Your task to perform on an android device: check storage Image 0: 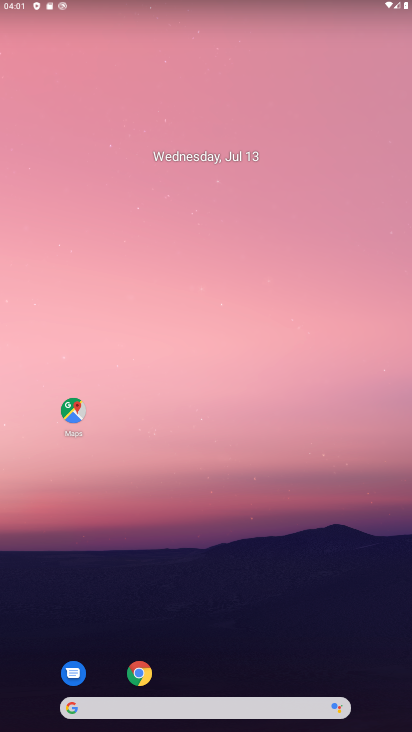
Step 0: press home button
Your task to perform on an android device: check storage Image 1: 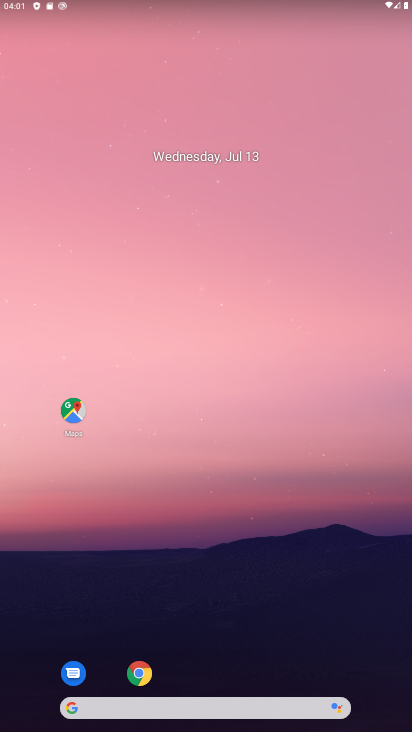
Step 1: drag from (287, 624) to (365, 12)
Your task to perform on an android device: check storage Image 2: 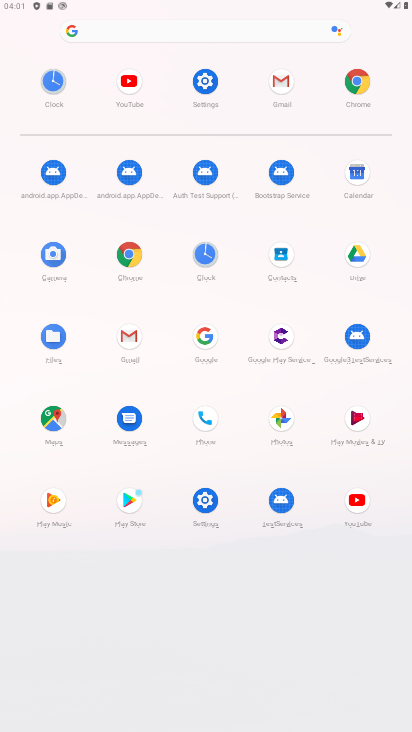
Step 2: click (199, 509)
Your task to perform on an android device: check storage Image 3: 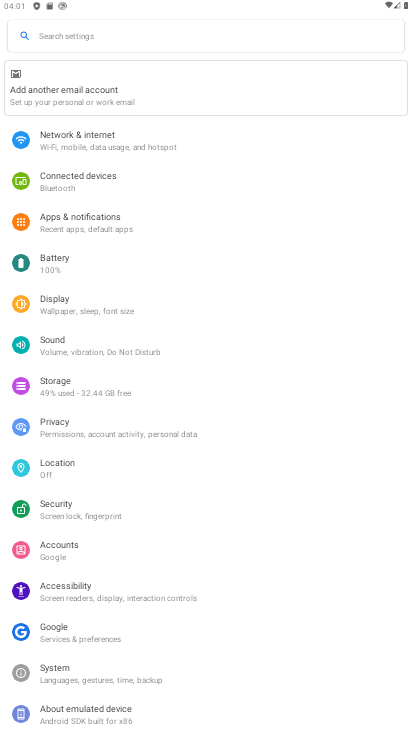
Step 3: click (146, 382)
Your task to perform on an android device: check storage Image 4: 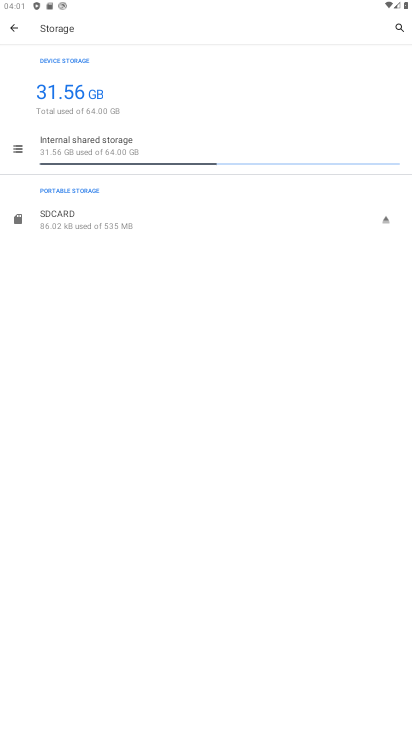
Step 4: task complete